Your task to perform on an android device: turn on showing notifications on the lock screen Image 0: 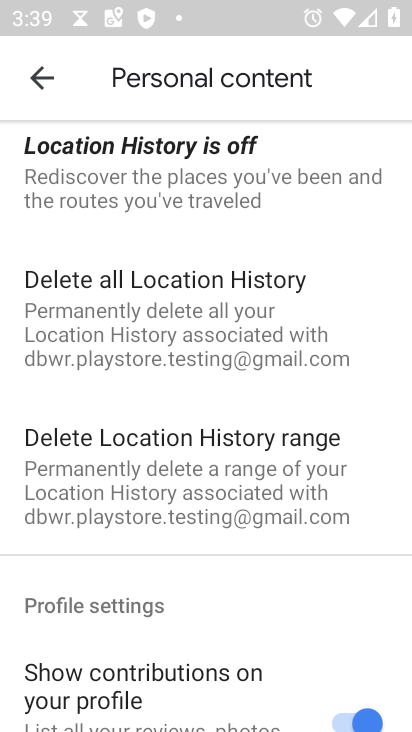
Step 0: press back button
Your task to perform on an android device: turn on showing notifications on the lock screen Image 1: 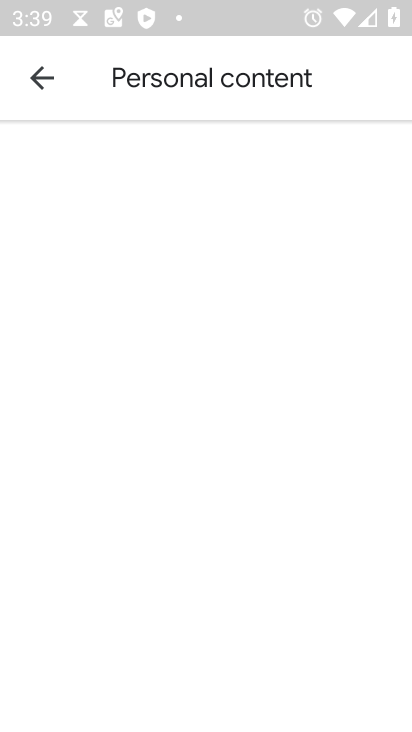
Step 1: press back button
Your task to perform on an android device: turn on showing notifications on the lock screen Image 2: 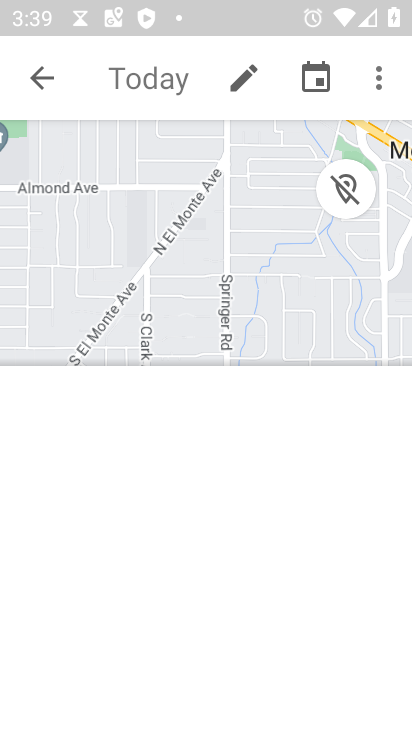
Step 2: press back button
Your task to perform on an android device: turn on showing notifications on the lock screen Image 3: 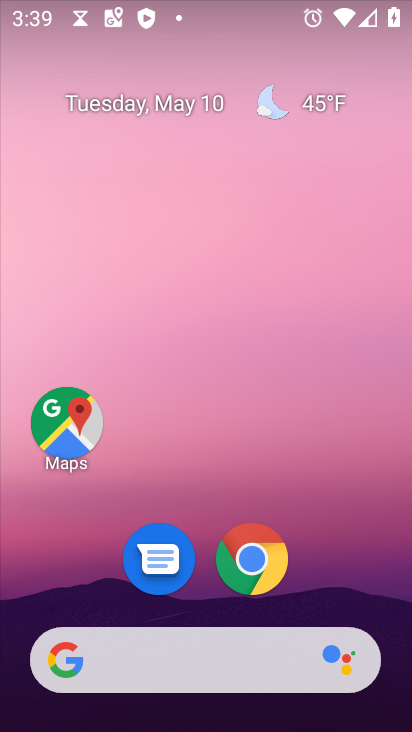
Step 3: drag from (328, 521) to (140, 20)
Your task to perform on an android device: turn on showing notifications on the lock screen Image 4: 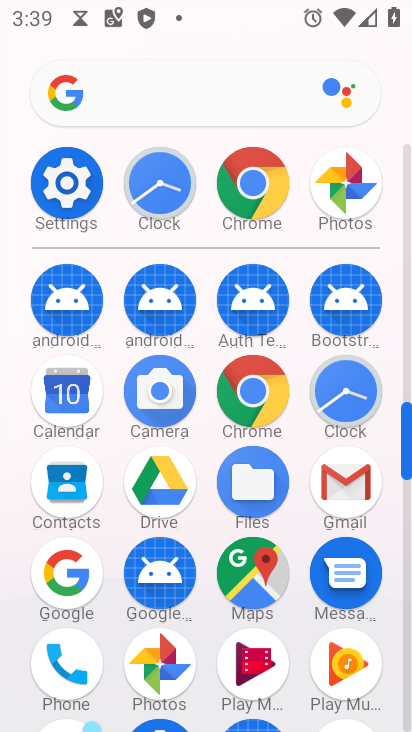
Step 4: click (71, 183)
Your task to perform on an android device: turn on showing notifications on the lock screen Image 5: 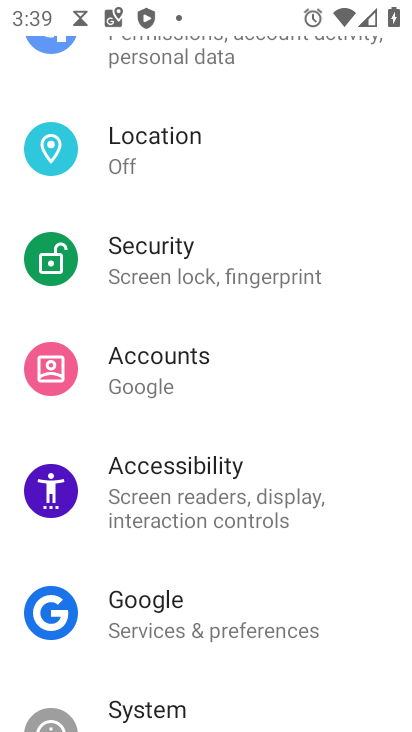
Step 5: drag from (206, 539) to (144, 152)
Your task to perform on an android device: turn on showing notifications on the lock screen Image 6: 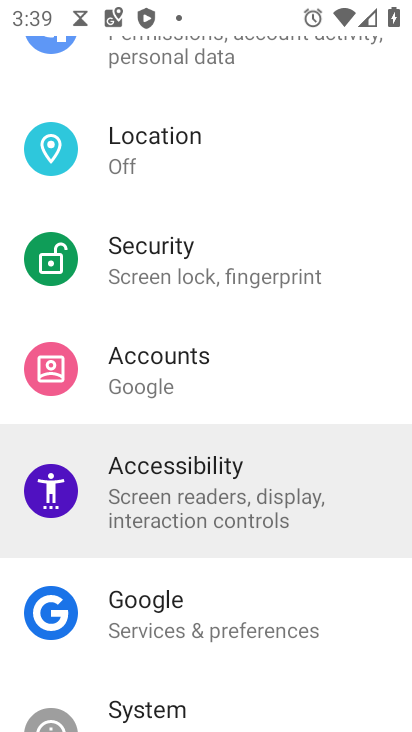
Step 6: drag from (197, 415) to (159, 6)
Your task to perform on an android device: turn on showing notifications on the lock screen Image 7: 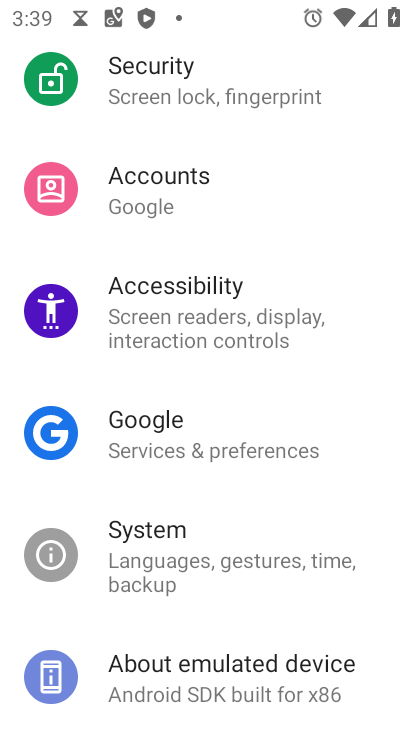
Step 7: drag from (223, 464) to (221, 25)
Your task to perform on an android device: turn on showing notifications on the lock screen Image 8: 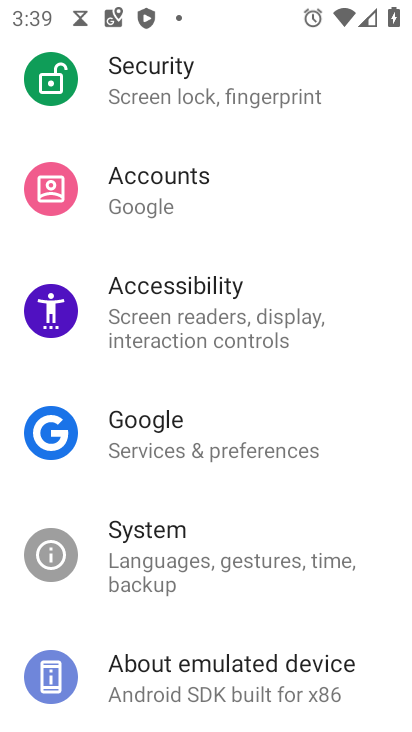
Step 8: drag from (154, 153) to (165, 678)
Your task to perform on an android device: turn on showing notifications on the lock screen Image 9: 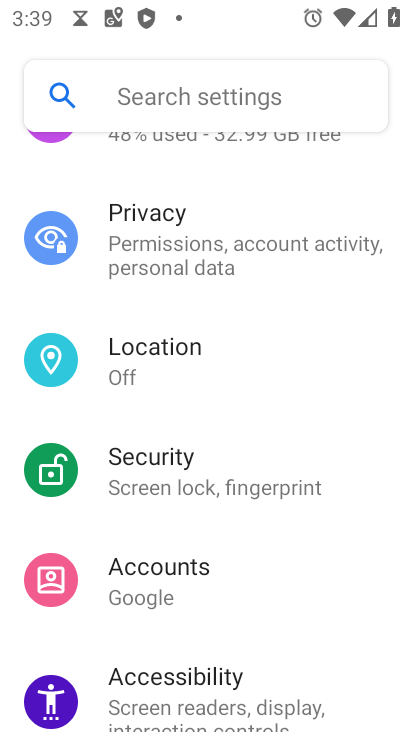
Step 9: drag from (156, 245) to (159, 710)
Your task to perform on an android device: turn on showing notifications on the lock screen Image 10: 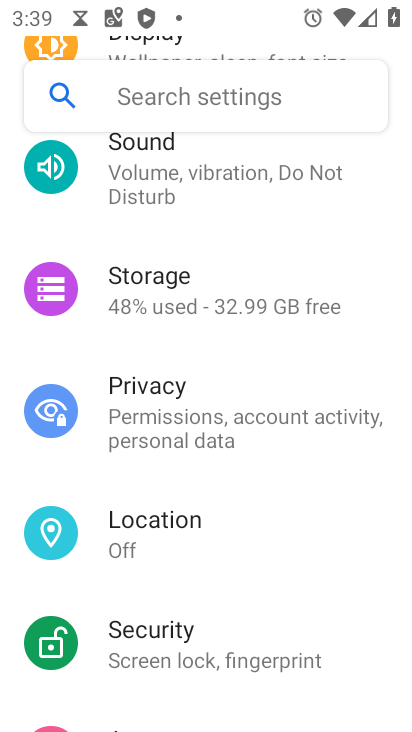
Step 10: drag from (229, 431) to (236, 608)
Your task to perform on an android device: turn on showing notifications on the lock screen Image 11: 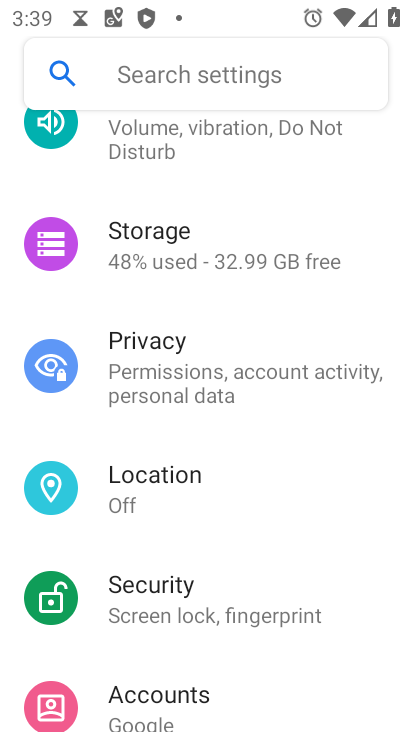
Step 11: drag from (114, 190) to (176, 660)
Your task to perform on an android device: turn on showing notifications on the lock screen Image 12: 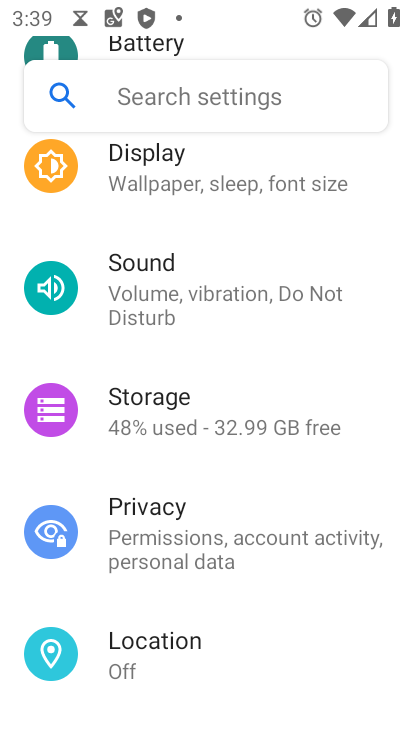
Step 12: drag from (172, 211) to (274, 687)
Your task to perform on an android device: turn on showing notifications on the lock screen Image 13: 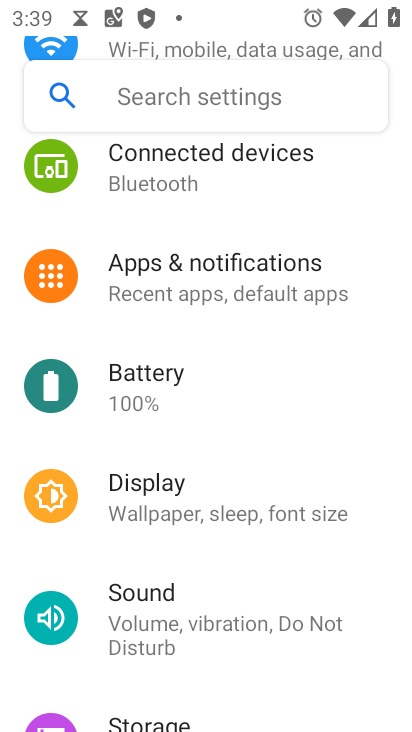
Step 13: drag from (256, 115) to (280, 565)
Your task to perform on an android device: turn on showing notifications on the lock screen Image 14: 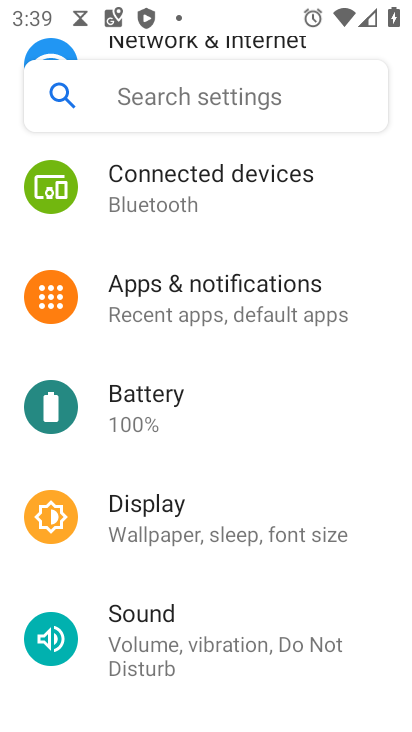
Step 14: drag from (260, 250) to (327, 567)
Your task to perform on an android device: turn on showing notifications on the lock screen Image 15: 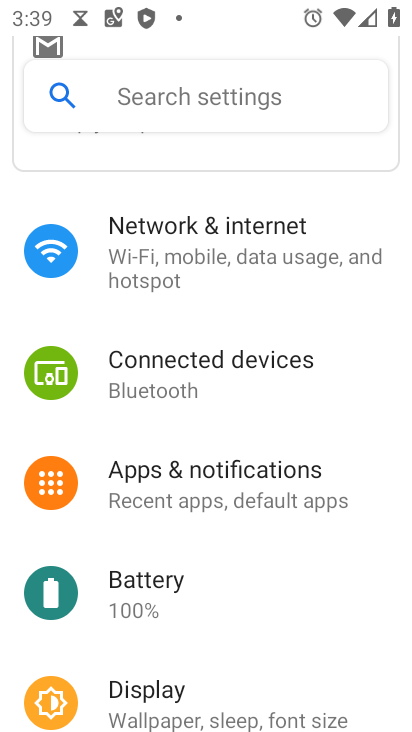
Step 15: drag from (309, 318) to (307, 654)
Your task to perform on an android device: turn on showing notifications on the lock screen Image 16: 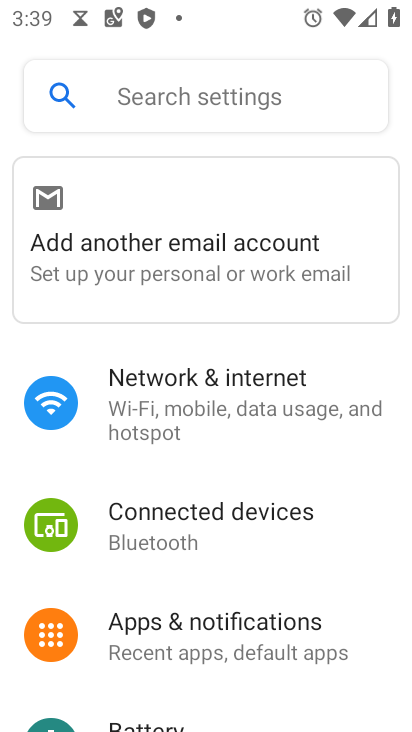
Step 16: click (193, 637)
Your task to perform on an android device: turn on showing notifications on the lock screen Image 17: 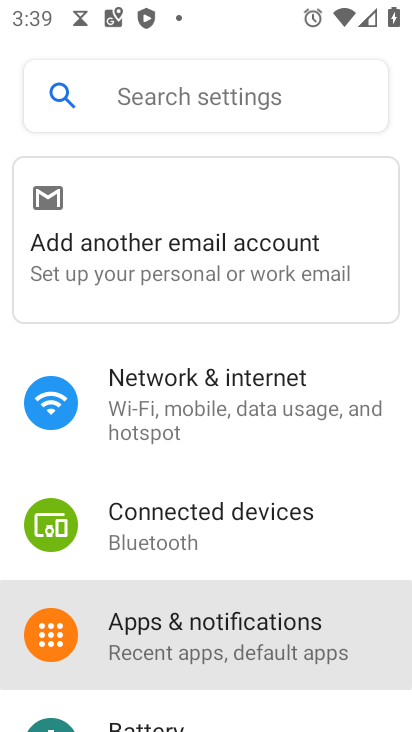
Step 17: click (193, 637)
Your task to perform on an android device: turn on showing notifications on the lock screen Image 18: 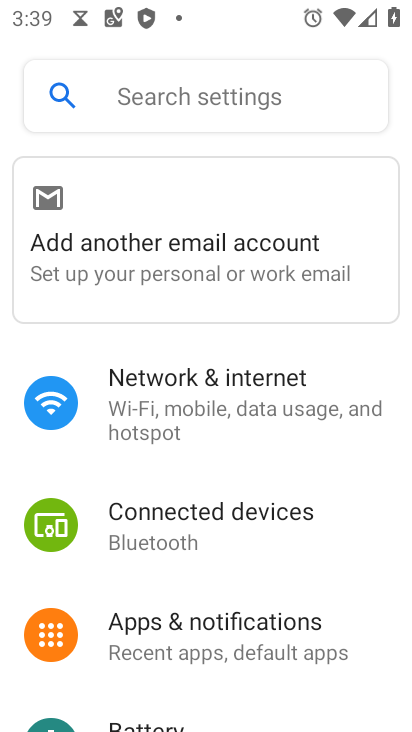
Step 18: click (193, 637)
Your task to perform on an android device: turn on showing notifications on the lock screen Image 19: 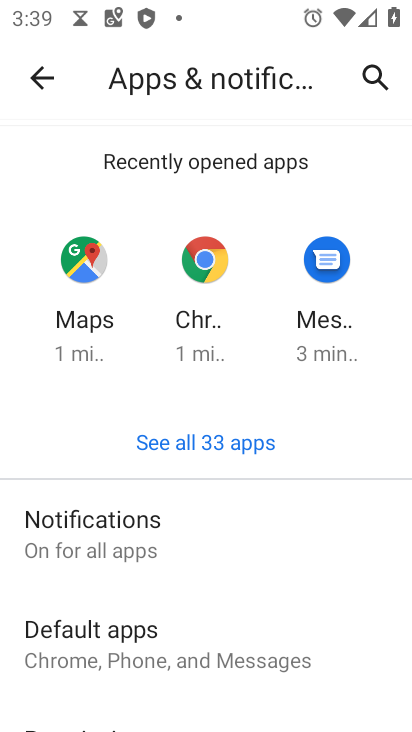
Step 19: click (94, 487)
Your task to perform on an android device: turn on showing notifications on the lock screen Image 20: 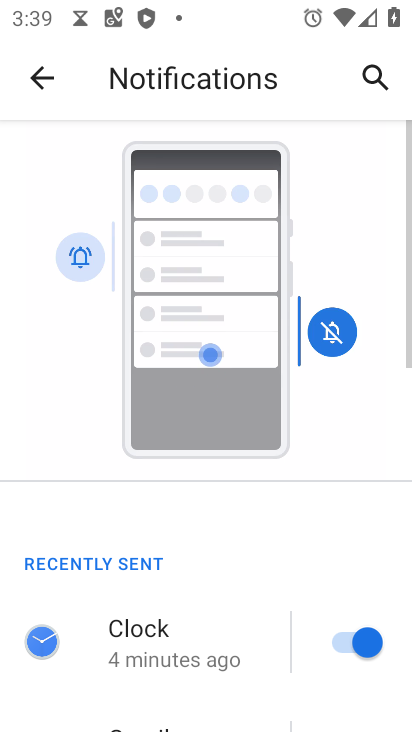
Step 20: drag from (197, 574) to (145, 43)
Your task to perform on an android device: turn on showing notifications on the lock screen Image 21: 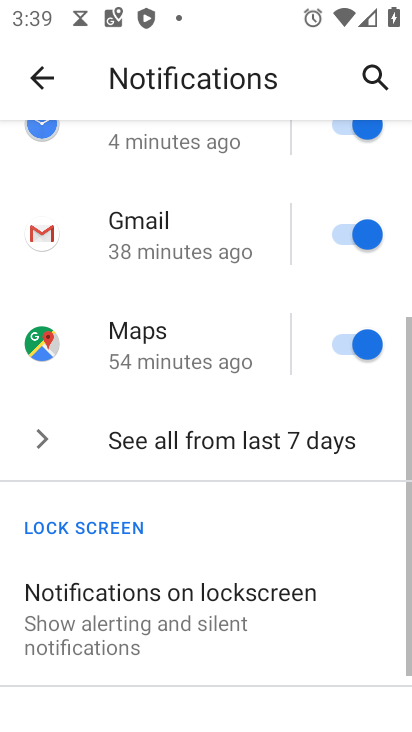
Step 21: drag from (209, 428) to (209, 162)
Your task to perform on an android device: turn on showing notifications on the lock screen Image 22: 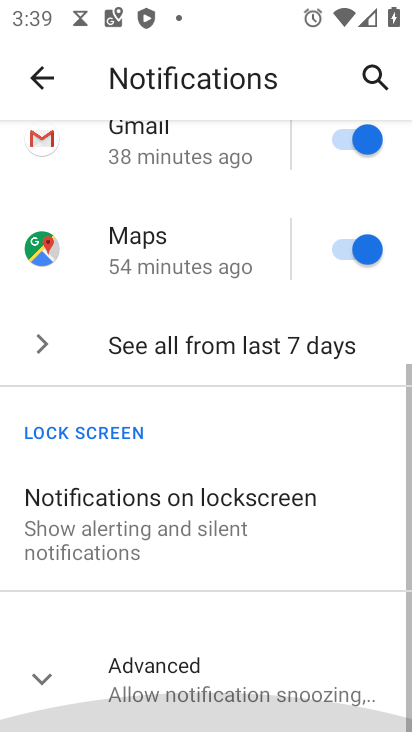
Step 22: drag from (187, 372) to (167, 133)
Your task to perform on an android device: turn on showing notifications on the lock screen Image 23: 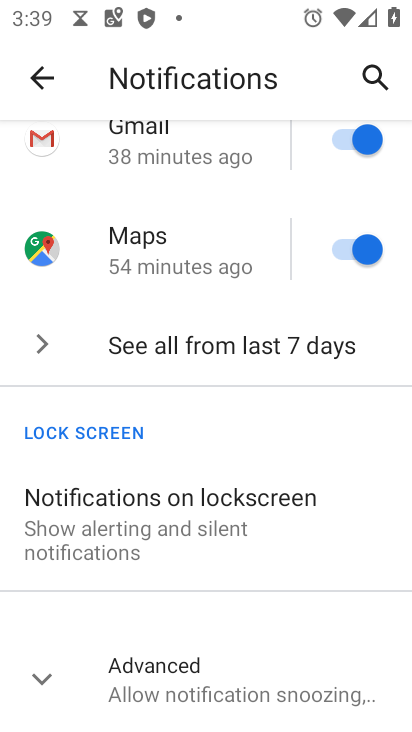
Step 23: click (138, 521)
Your task to perform on an android device: turn on showing notifications on the lock screen Image 24: 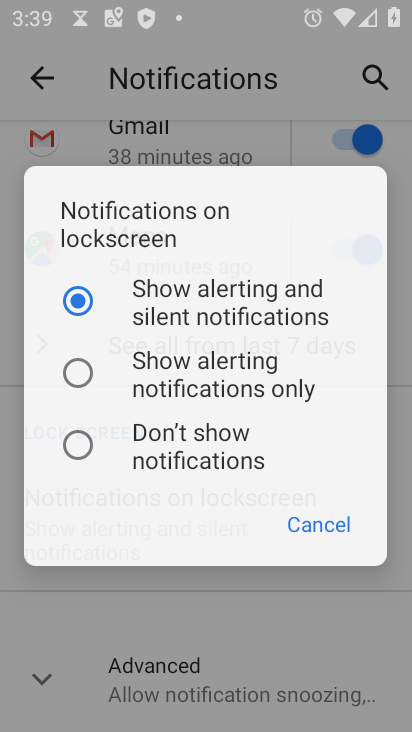
Step 24: click (137, 517)
Your task to perform on an android device: turn on showing notifications on the lock screen Image 25: 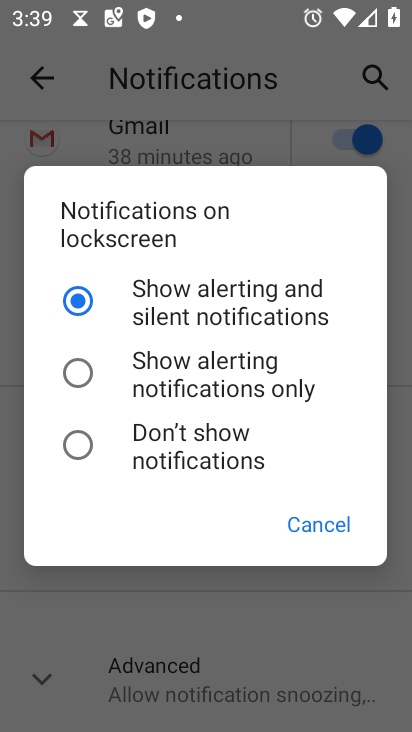
Step 25: click (137, 517)
Your task to perform on an android device: turn on showing notifications on the lock screen Image 26: 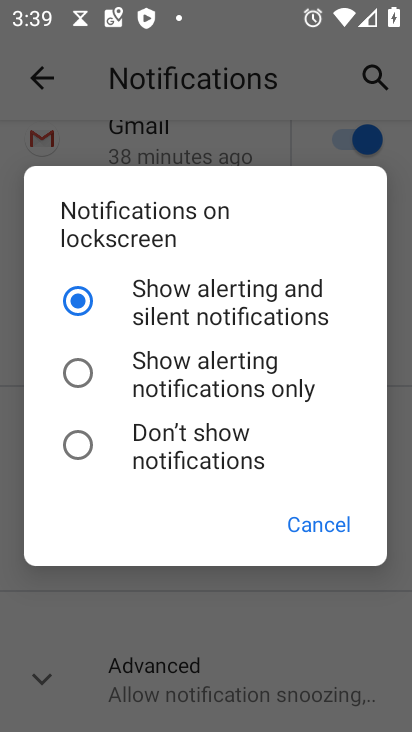
Step 26: task complete